Your task to perform on an android device: choose inbox layout in the gmail app Image 0: 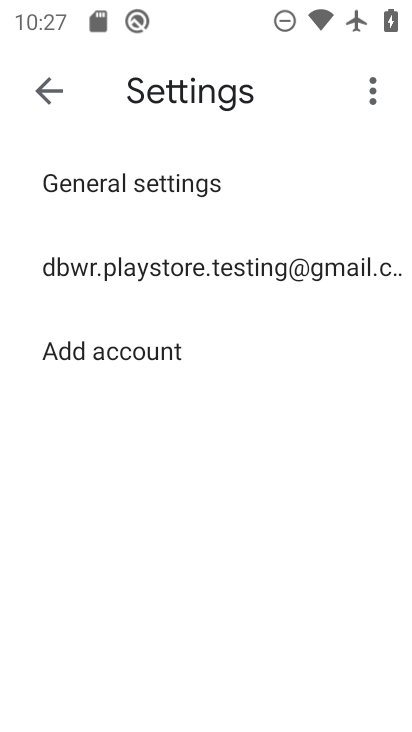
Step 0: click (109, 274)
Your task to perform on an android device: choose inbox layout in the gmail app Image 1: 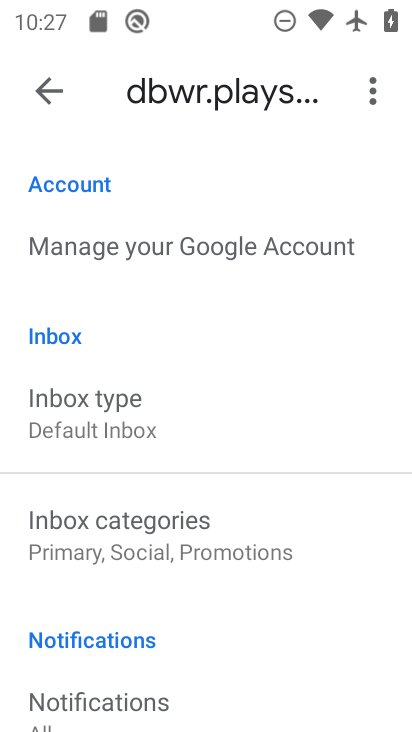
Step 1: click (103, 418)
Your task to perform on an android device: choose inbox layout in the gmail app Image 2: 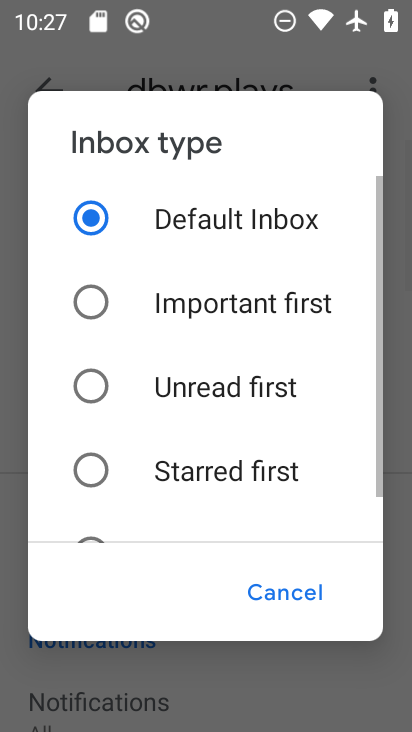
Step 2: click (88, 312)
Your task to perform on an android device: choose inbox layout in the gmail app Image 3: 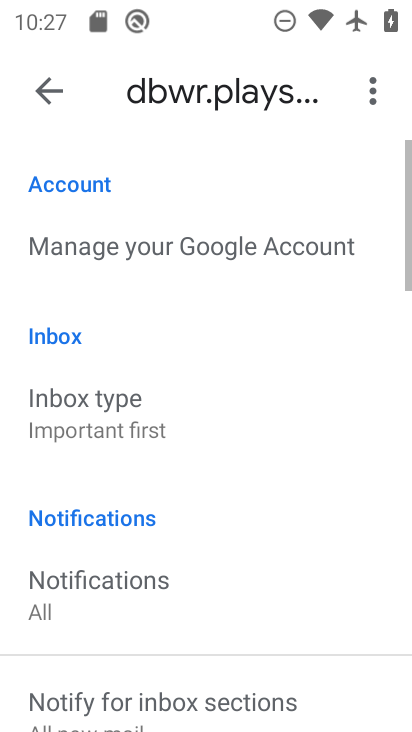
Step 3: task complete